Your task to perform on an android device: Go to Amazon Image 0: 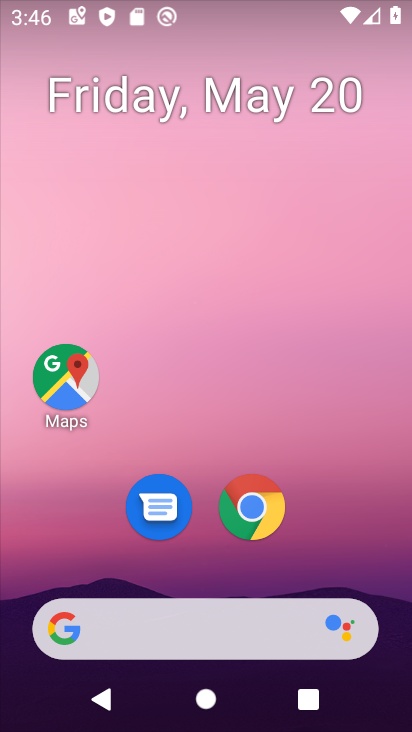
Step 0: click (254, 505)
Your task to perform on an android device: Go to Amazon Image 1: 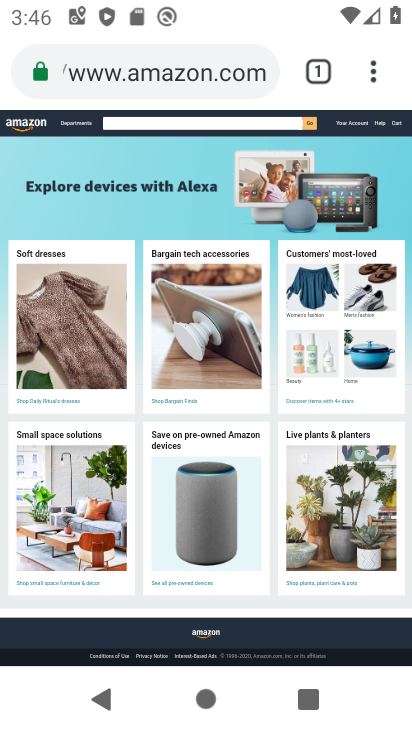
Step 1: task complete